Your task to perform on an android device: Open settings on Google Maps Image 0: 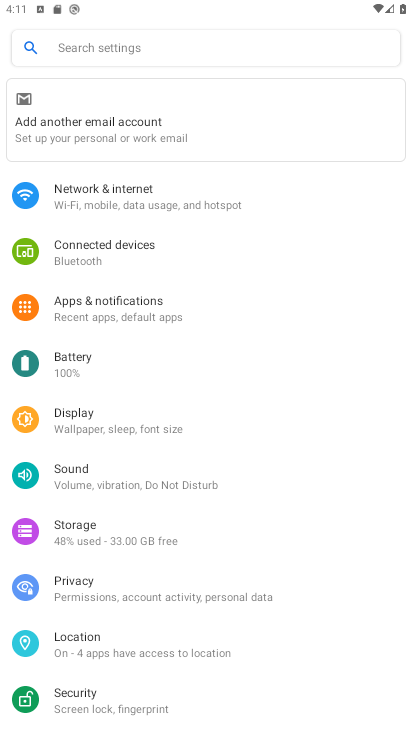
Step 0: press home button
Your task to perform on an android device: Open settings on Google Maps Image 1: 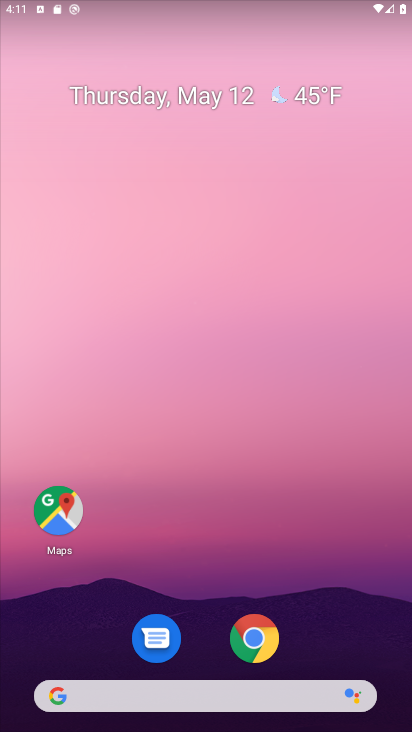
Step 1: click (44, 502)
Your task to perform on an android device: Open settings on Google Maps Image 2: 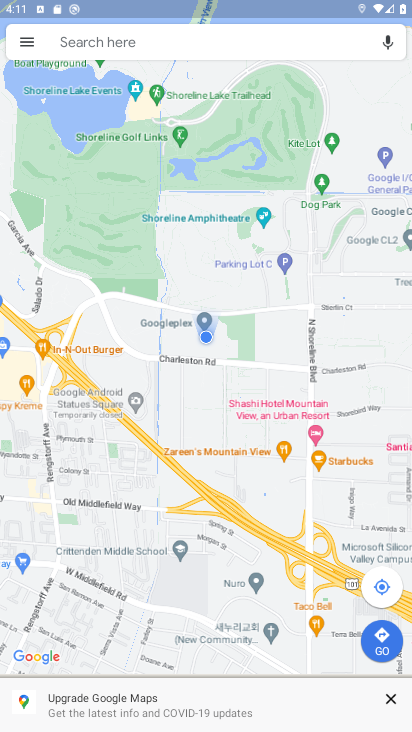
Step 2: click (22, 35)
Your task to perform on an android device: Open settings on Google Maps Image 3: 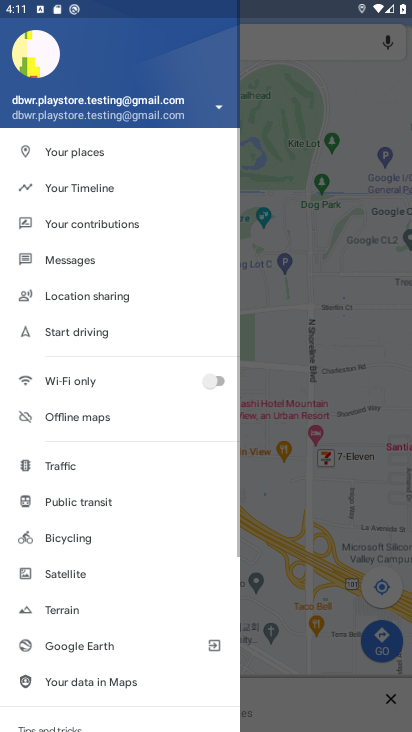
Step 3: drag from (126, 633) to (149, 157)
Your task to perform on an android device: Open settings on Google Maps Image 4: 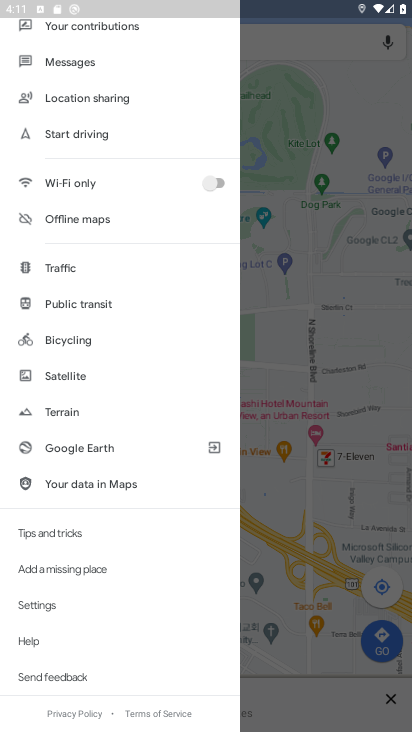
Step 4: click (47, 611)
Your task to perform on an android device: Open settings on Google Maps Image 5: 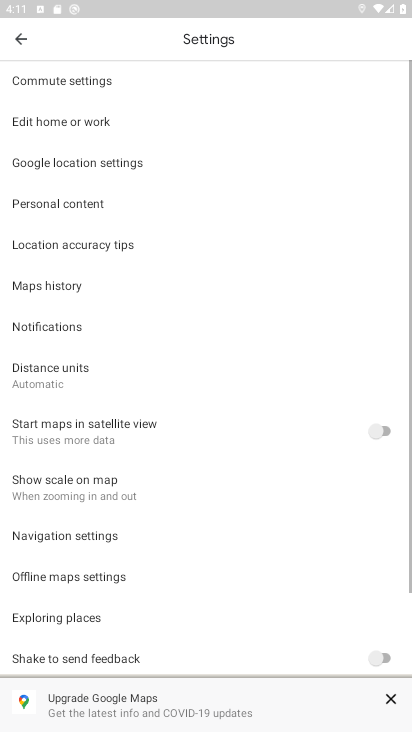
Step 5: task complete